Your task to perform on an android device: Show me the alarms in the clock app Image 0: 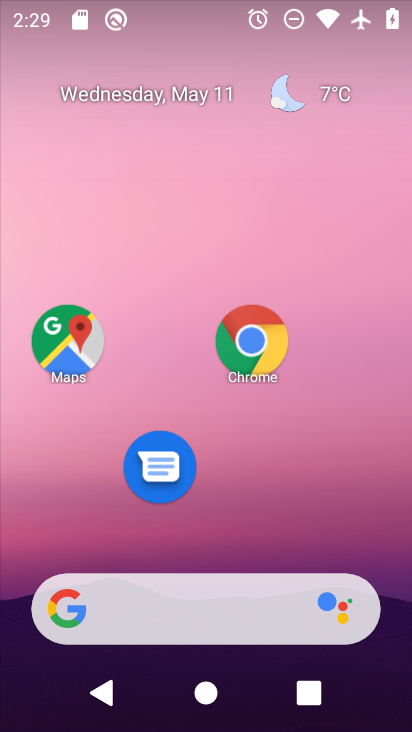
Step 0: press home button
Your task to perform on an android device: Show me the alarms in the clock app Image 1: 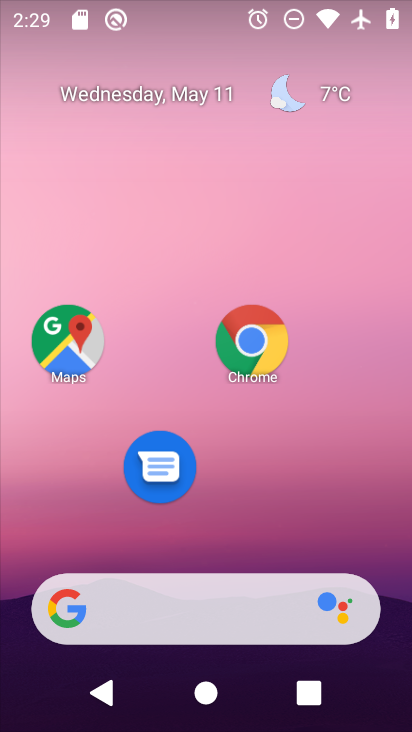
Step 1: drag from (149, 613) to (240, 201)
Your task to perform on an android device: Show me the alarms in the clock app Image 2: 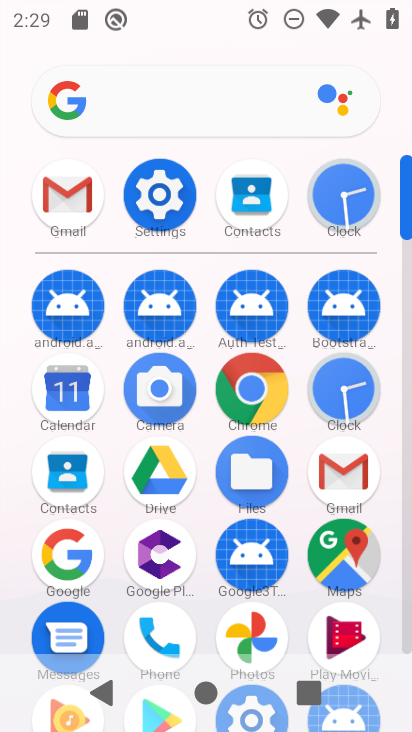
Step 2: click (336, 387)
Your task to perform on an android device: Show me the alarms in the clock app Image 3: 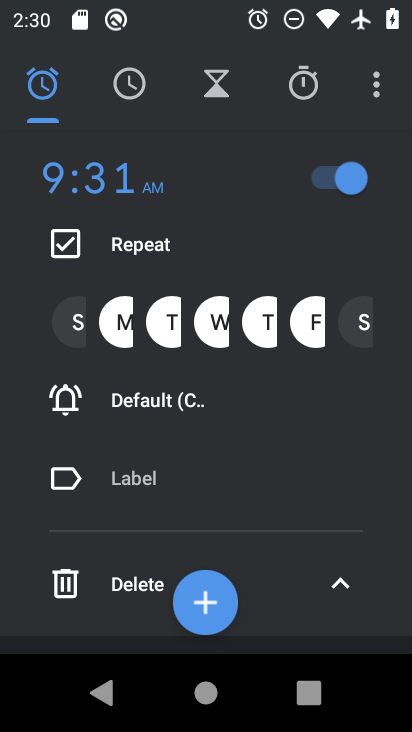
Step 3: task complete